Your task to perform on an android device: Find coffee shops on Maps Image 0: 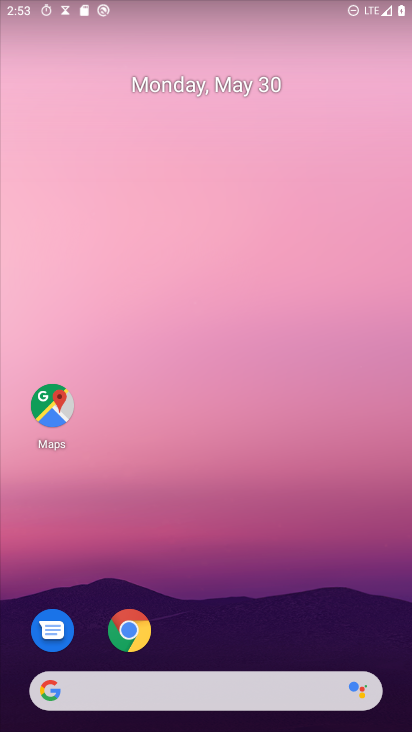
Step 0: drag from (227, 728) to (177, 0)
Your task to perform on an android device: Find coffee shops on Maps Image 1: 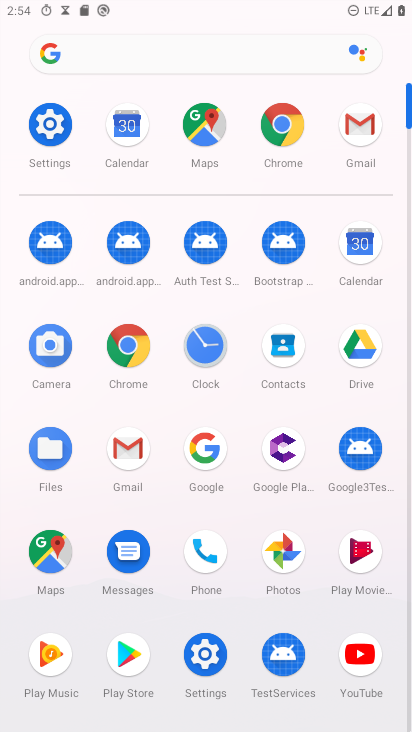
Step 1: click (207, 110)
Your task to perform on an android device: Find coffee shops on Maps Image 2: 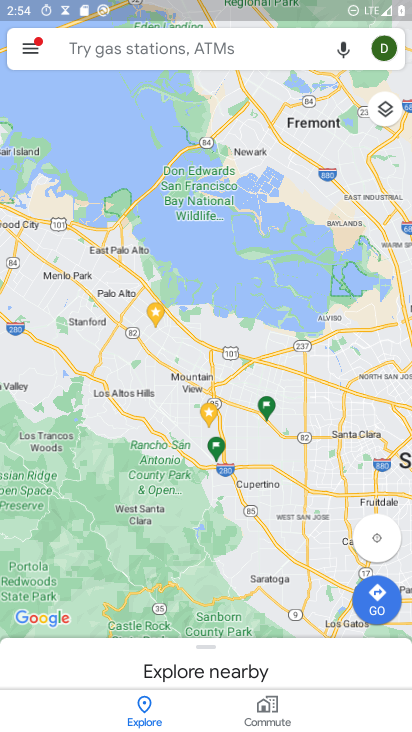
Step 2: click (129, 50)
Your task to perform on an android device: Find coffee shops on Maps Image 3: 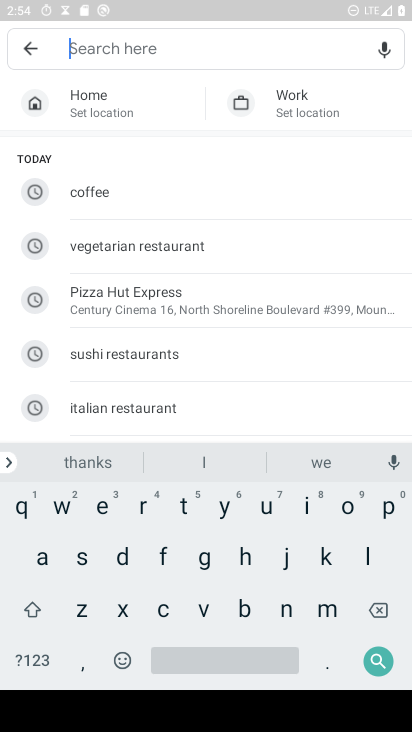
Step 3: click (138, 189)
Your task to perform on an android device: Find coffee shops on Maps Image 4: 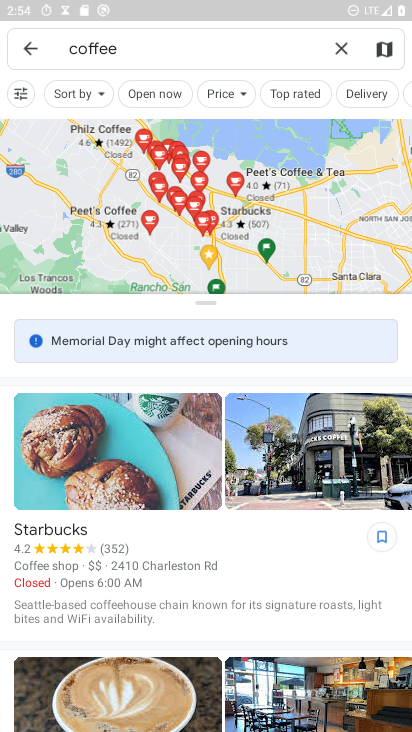
Step 4: click (110, 174)
Your task to perform on an android device: Find coffee shops on Maps Image 5: 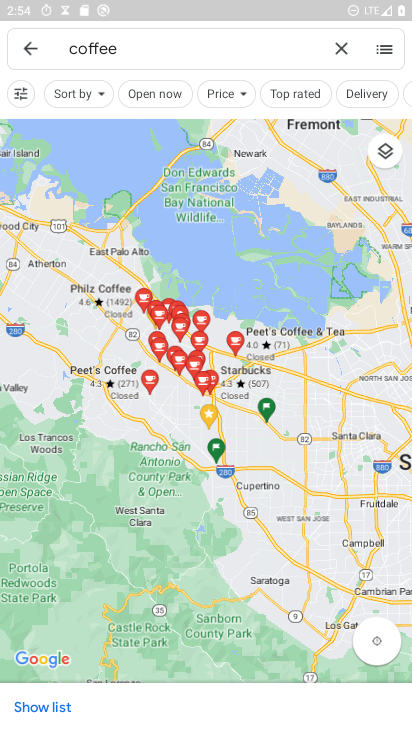
Step 5: click (212, 349)
Your task to perform on an android device: Find coffee shops on Maps Image 6: 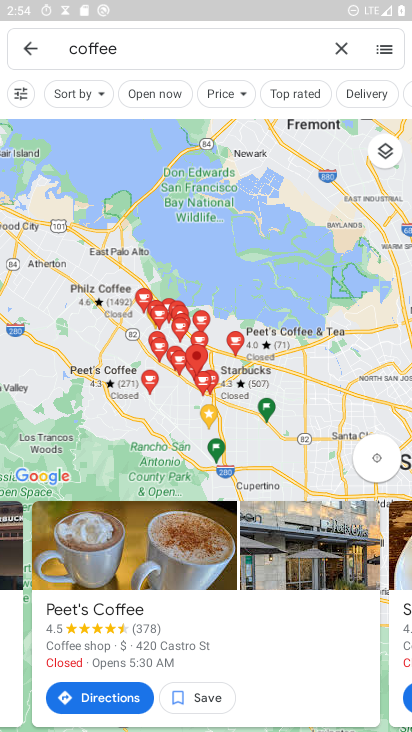
Step 6: task complete